Your task to perform on an android device: turn pop-ups off in chrome Image 0: 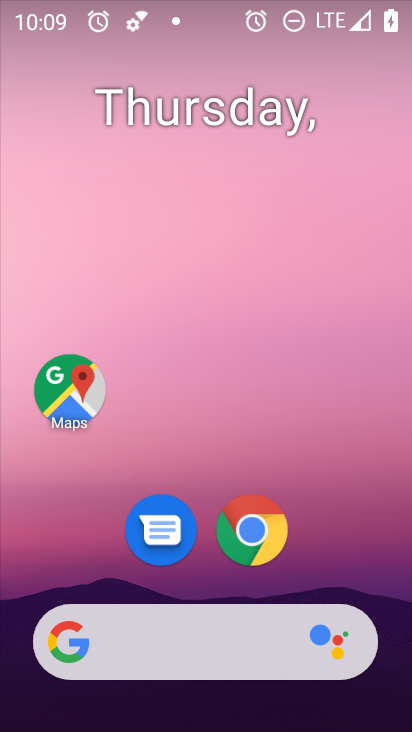
Step 0: drag from (340, 528) to (277, 54)
Your task to perform on an android device: turn pop-ups off in chrome Image 1: 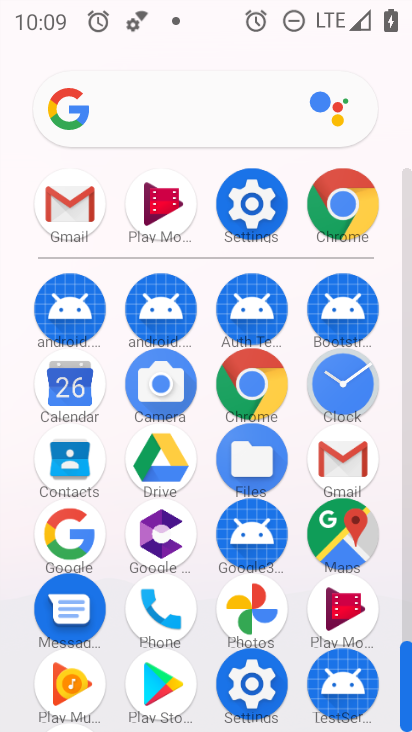
Step 1: drag from (8, 585) to (11, 308)
Your task to perform on an android device: turn pop-ups off in chrome Image 2: 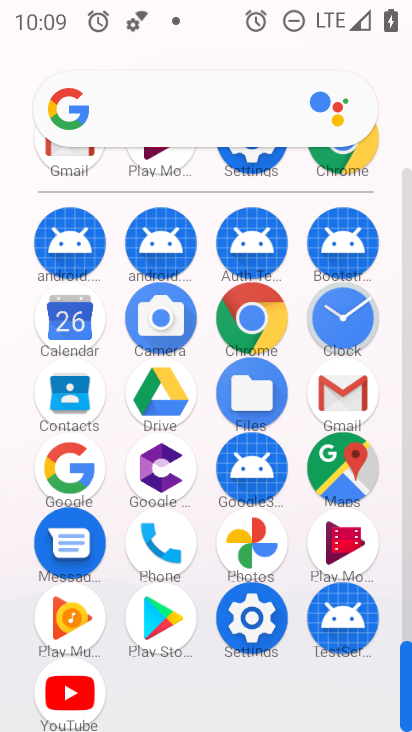
Step 2: click (249, 312)
Your task to perform on an android device: turn pop-ups off in chrome Image 3: 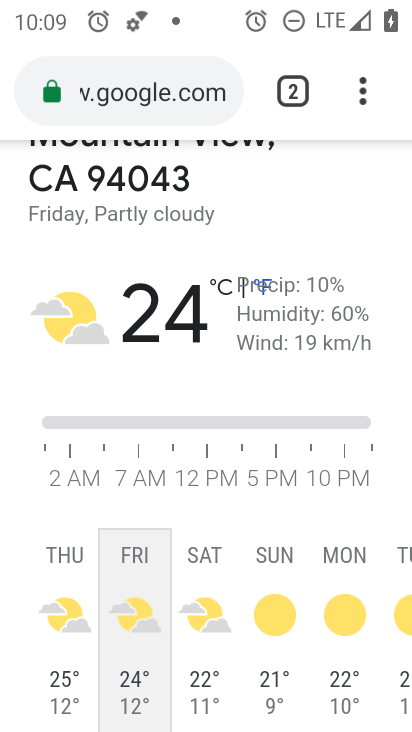
Step 3: drag from (361, 88) to (191, 541)
Your task to perform on an android device: turn pop-ups off in chrome Image 4: 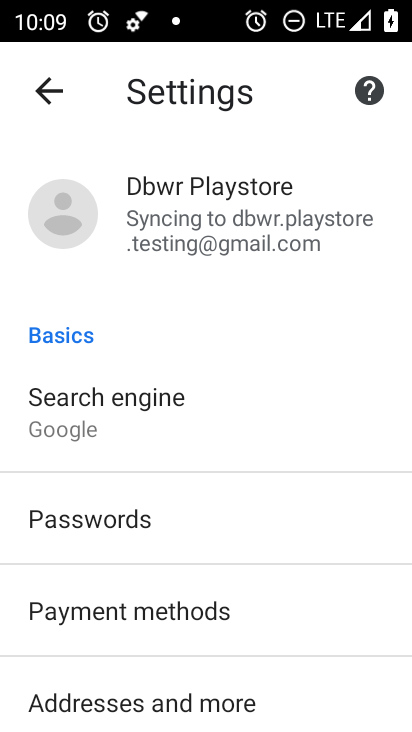
Step 4: drag from (247, 582) to (252, 210)
Your task to perform on an android device: turn pop-ups off in chrome Image 5: 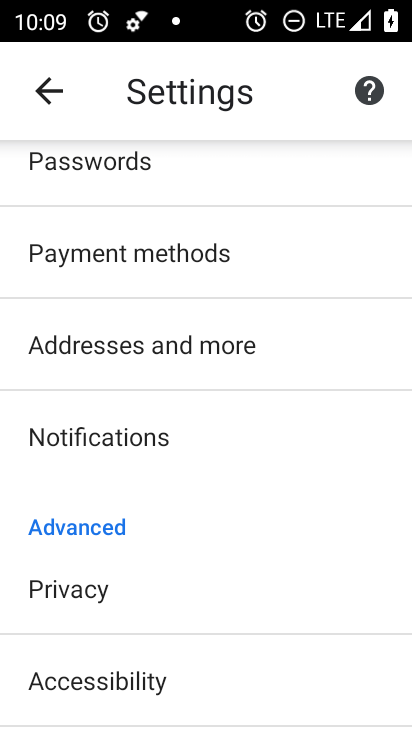
Step 5: drag from (251, 551) to (273, 187)
Your task to perform on an android device: turn pop-ups off in chrome Image 6: 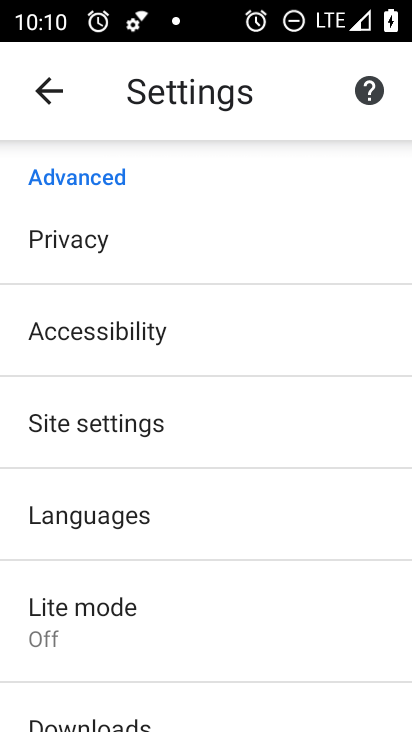
Step 6: click (186, 418)
Your task to perform on an android device: turn pop-ups off in chrome Image 7: 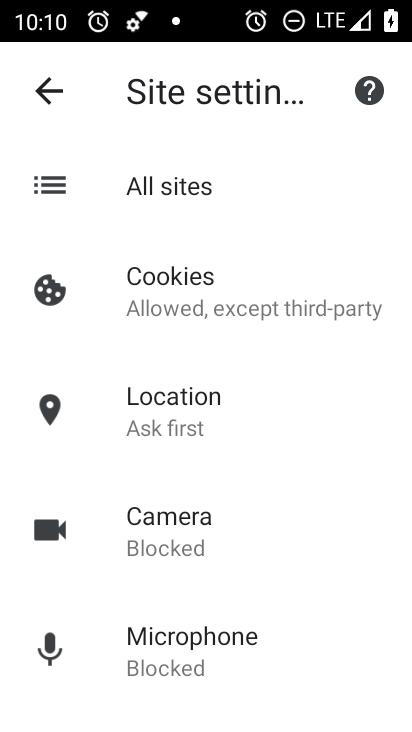
Step 7: drag from (219, 550) to (222, 225)
Your task to perform on an android device: turn pop-ups off in chrome Image 8: 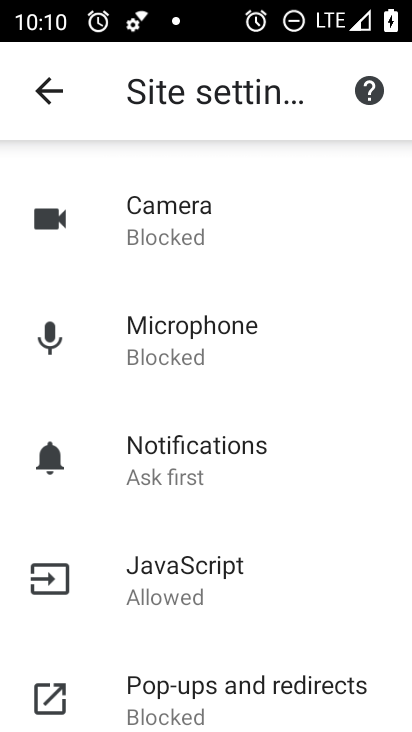
Step 8: drag from (262, 619) to (265, 309)
Your task to perform on an android device: turn pop-ups off in chrome Image 9: 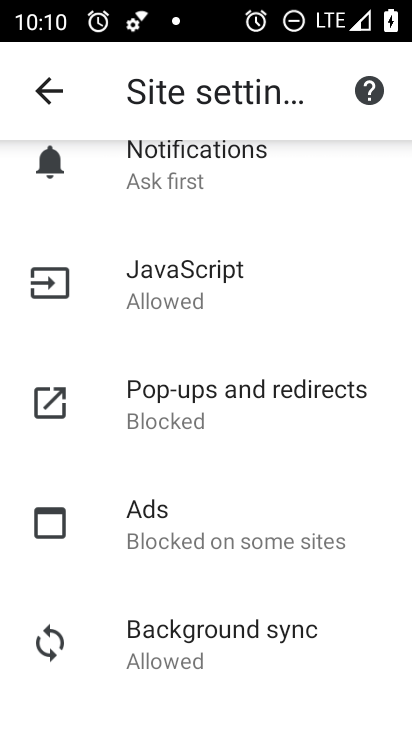
Step 9: click (231, 381)
Your task to perform on an android device: turn pop-ups off in chrome Image 10: 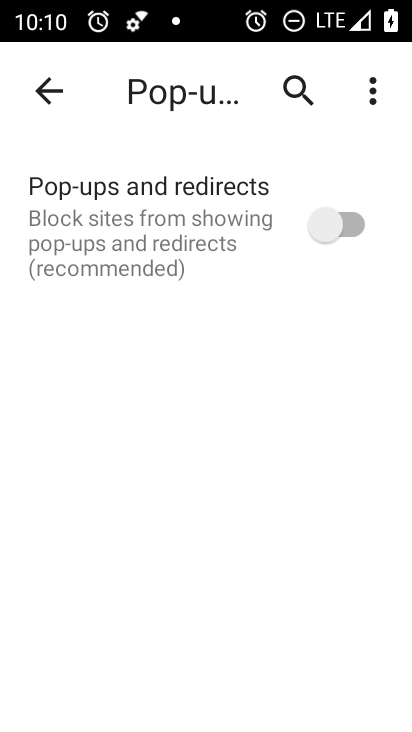
Step 10: task complete